Your task to perform on an android device: Show me the alarms in the clock app Image 0: 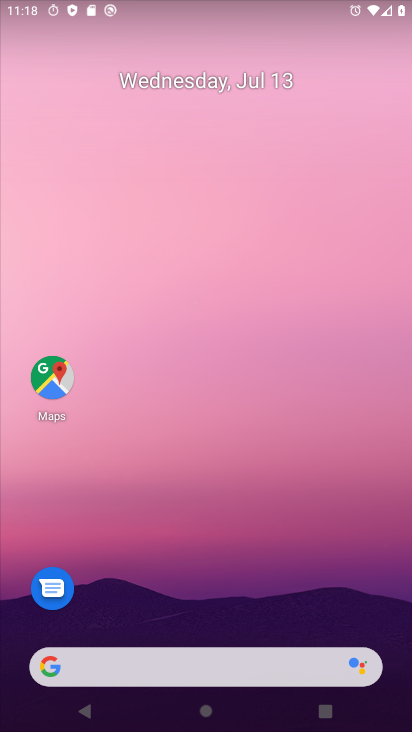
Step 0: drag from (152, 706) to (221, 34)
Your task to perform on an android device: Show me the alarms in the clock app Image 1: 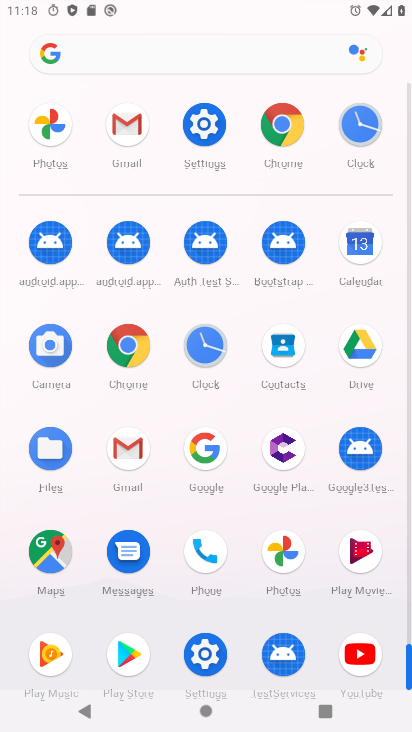
Step 1: click (211, 339)
Your task to perform on an android device: Show me the alarms in the clock app Image 2: 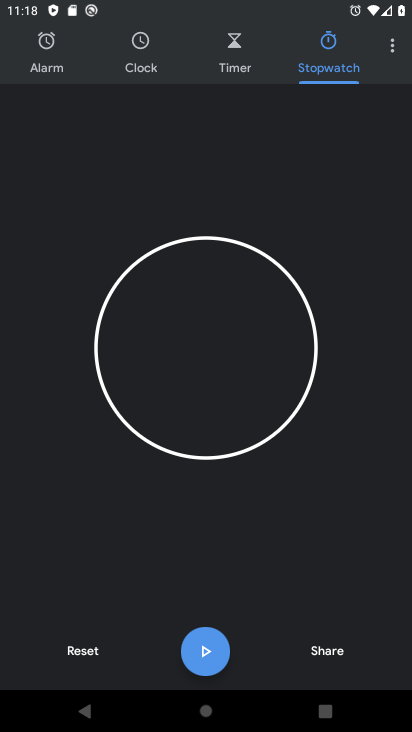
Step 2: click (43, 55)
Your task to perform on an android device: Show me the alarms in the clock app Image 3: 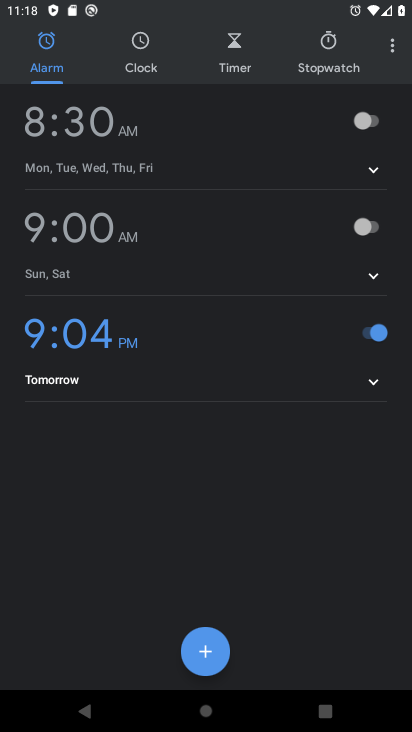
Step 3: task complete